Your task to perform on an android device: install app "Google Maps" Image 0: 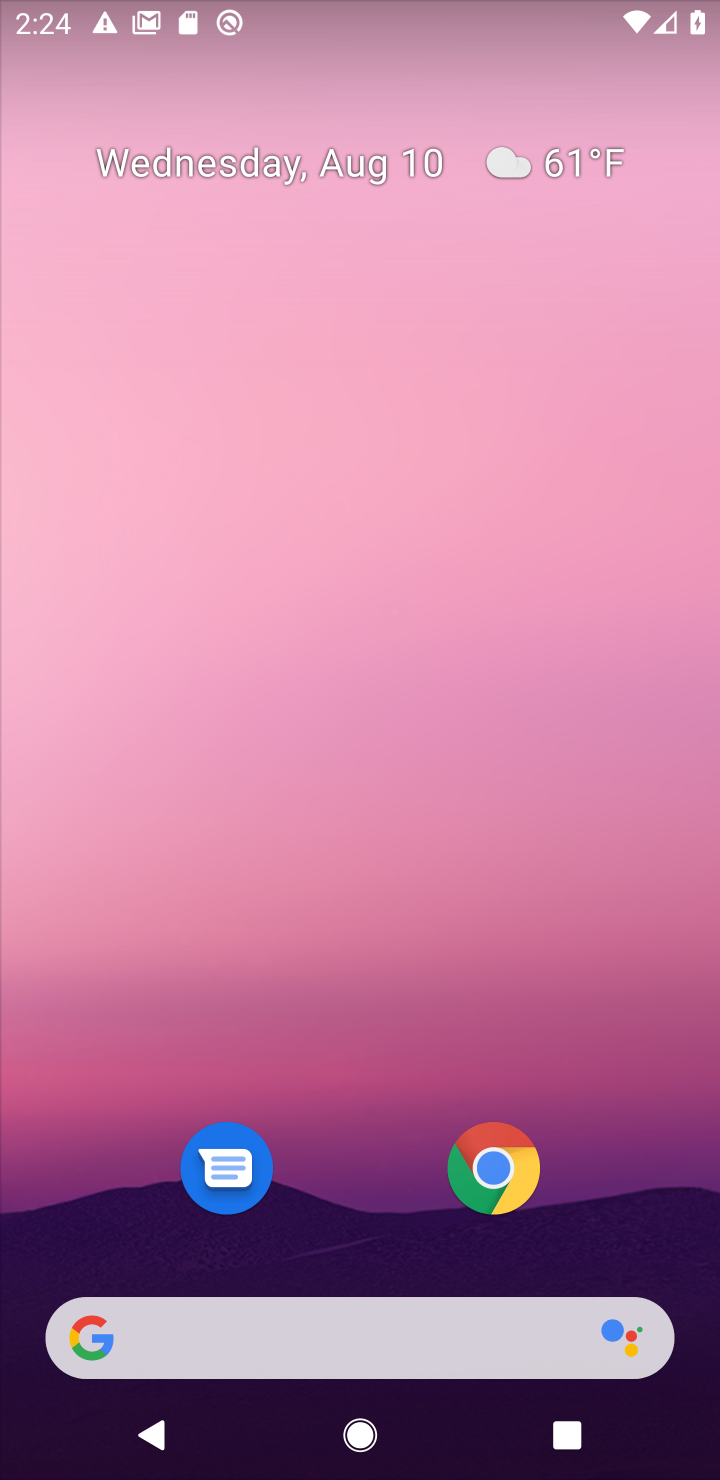
Step 0: drag from (258, 1338) to (323, 235)
Your task to perform on an android device: install app "Google Maps" Image 1: 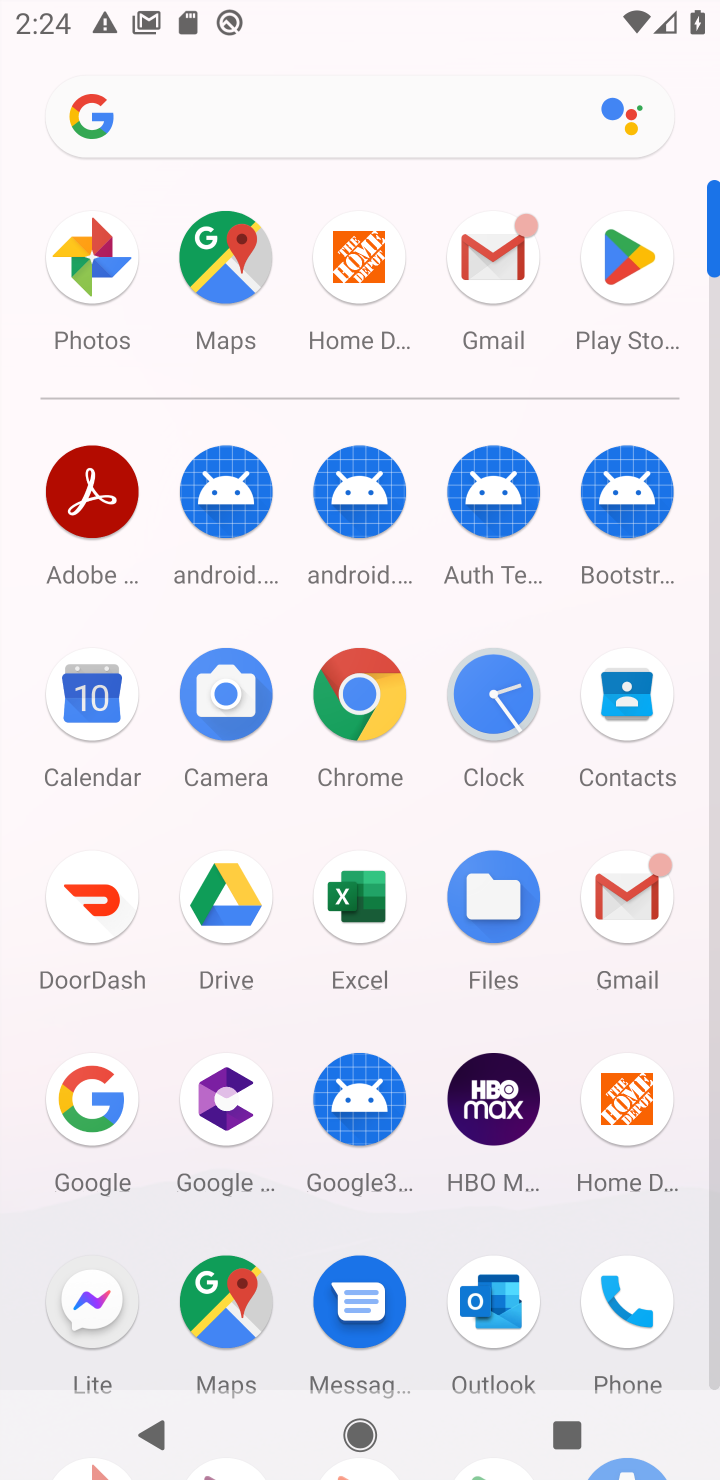
Step 1: click (618, 248)
Your task to perform on an android device: install app "Google Maps" Image 2: 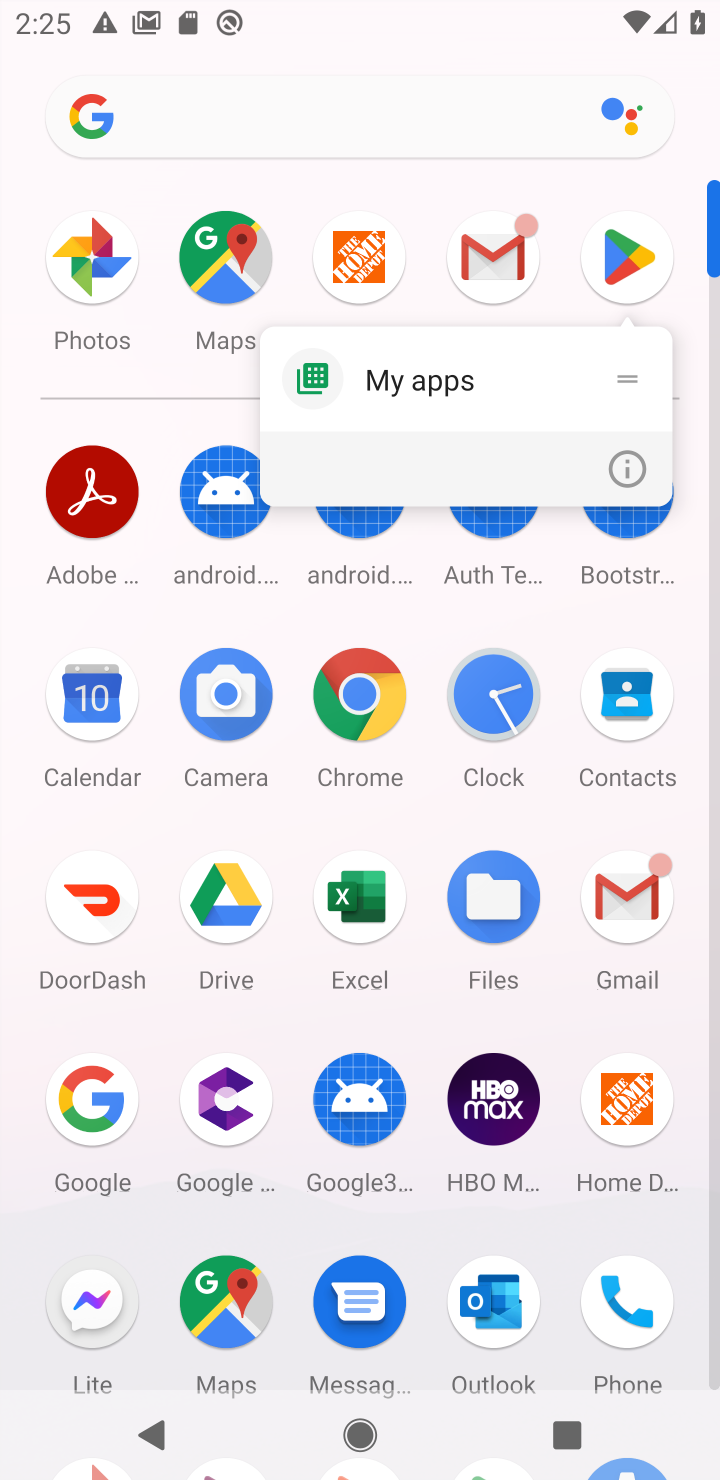
Step 2: click (638, 263)
Your task to perform on an android device: install app "Google Maps" Image 3: 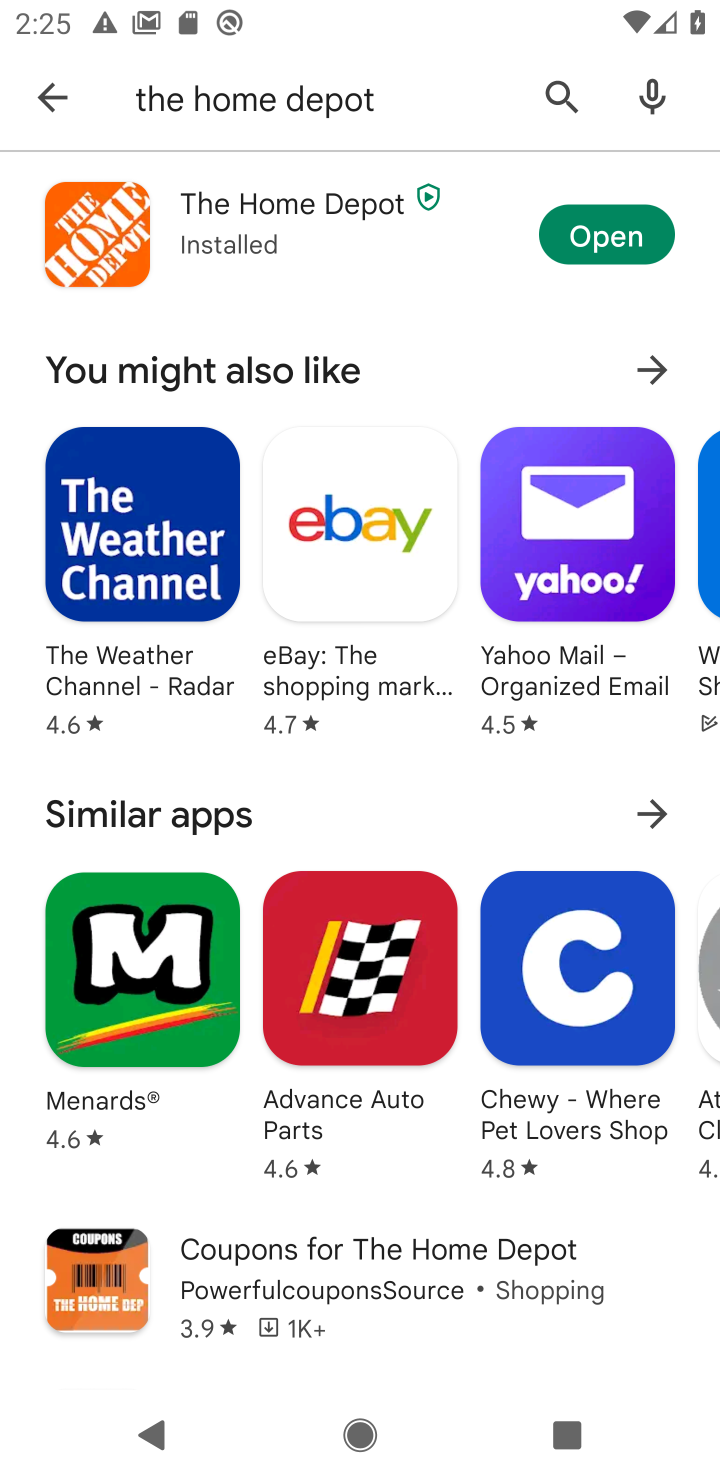
Step 3: click (552, 102)
Your task to perform on an android device: install app "Google Maps" Image 4: 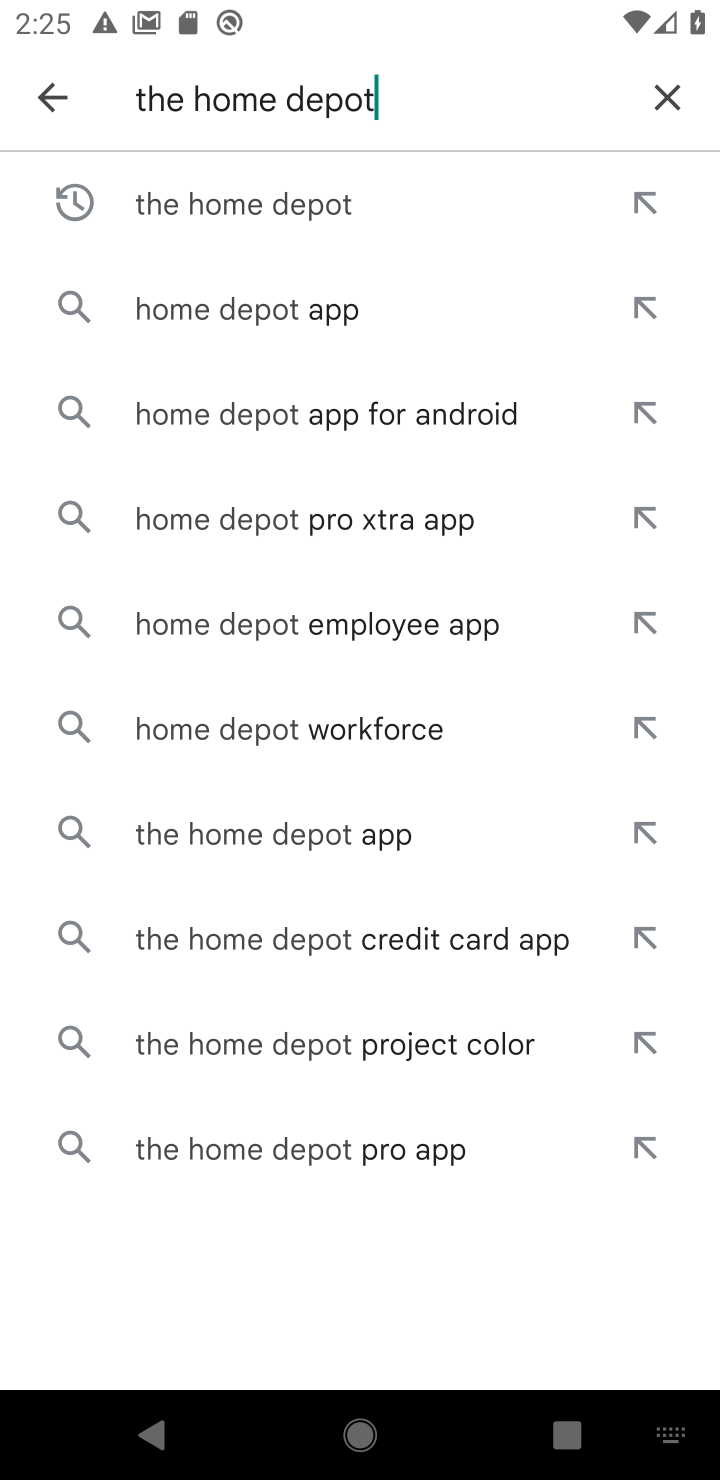
Step 4: click (678, 90)
Your task to perform on an android device: install app "Google Maps" Image 5: 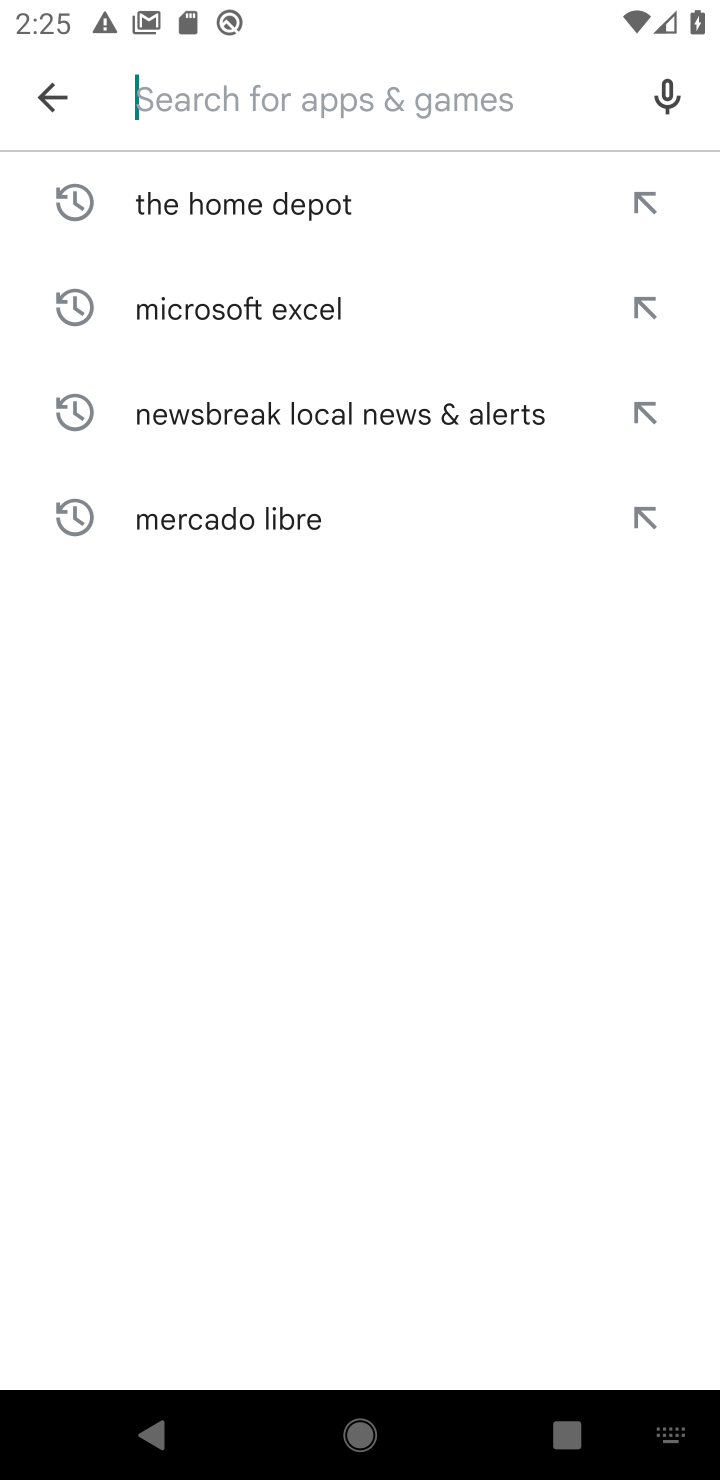
Step 5: type "Google Maps"
Your task to perform on an android device: install app "Google Maps" Image 6: 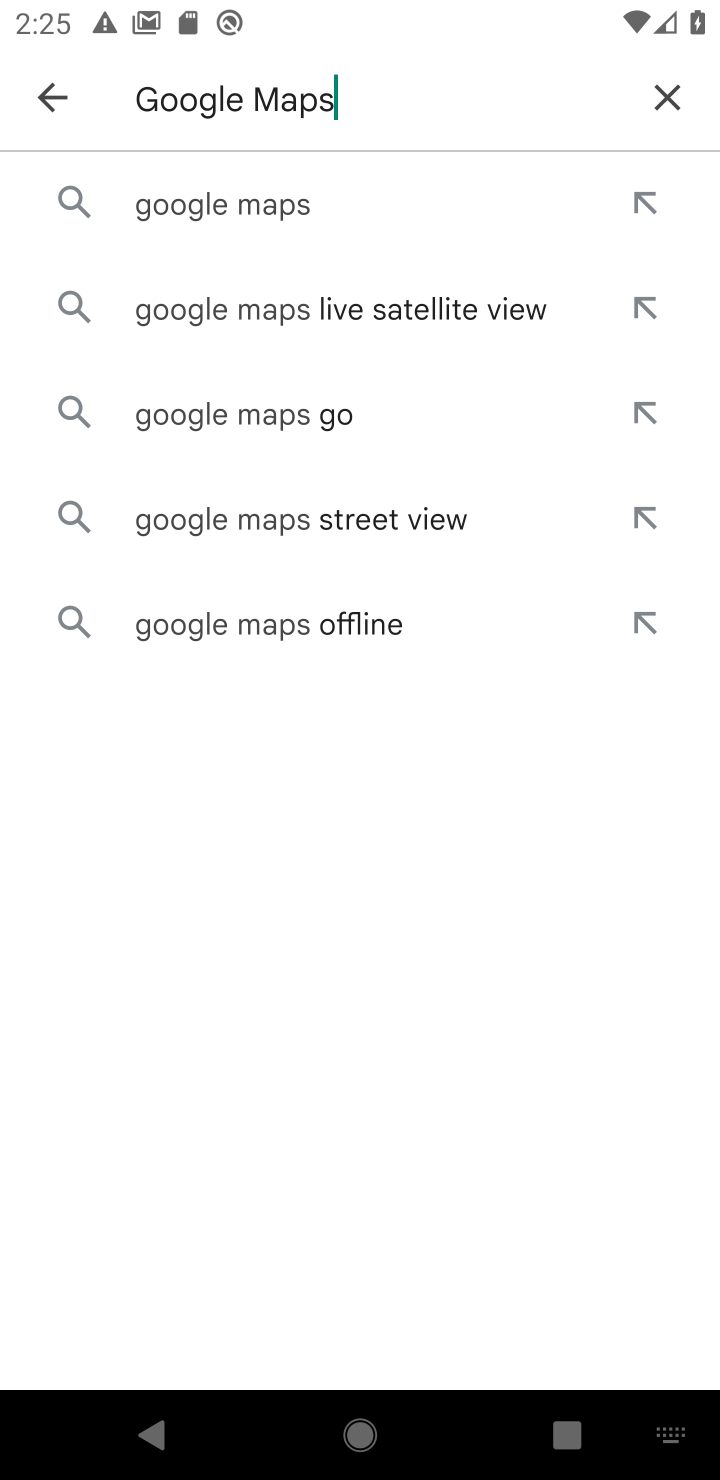
Step 6: click (311, 219)
Your task to perform on an android device: install app "Google Maps" Image 7: 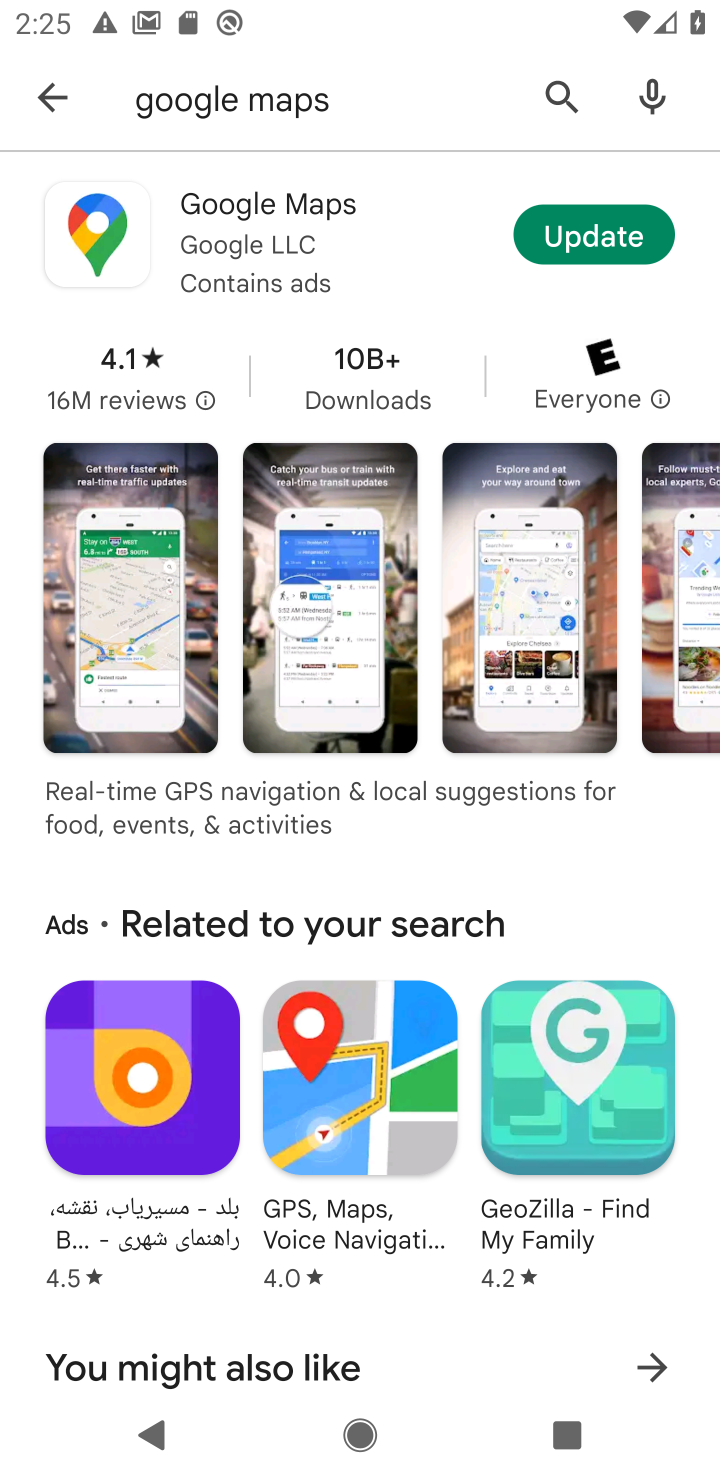
Step 7: task complete